Your task to perform on an android device: change the clock display to show seconds Image 0: 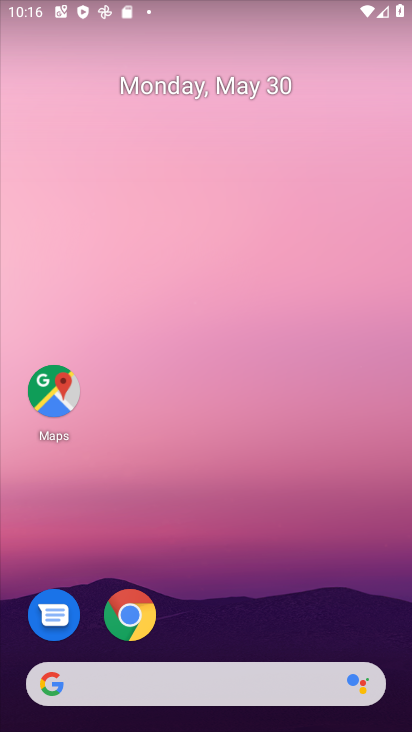
Step 0: drag from (279, 577) to (198, 6)
Your task to perform on an android device: change the clock display to show seconds Image 1: 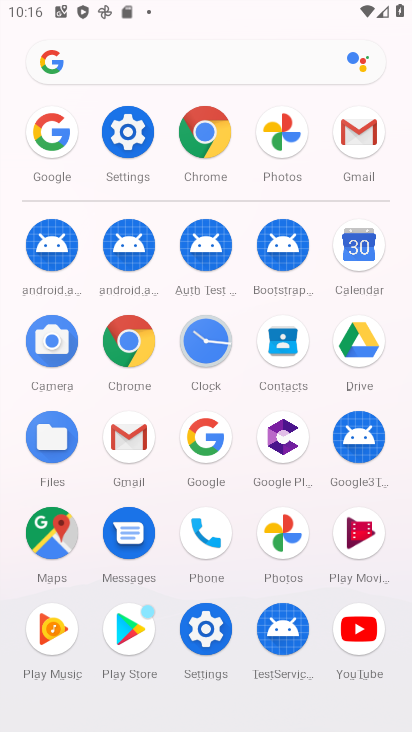
Step 1: click (209, 349)
Your task to perform on an android device: change the clock display to show seconds Image 2: 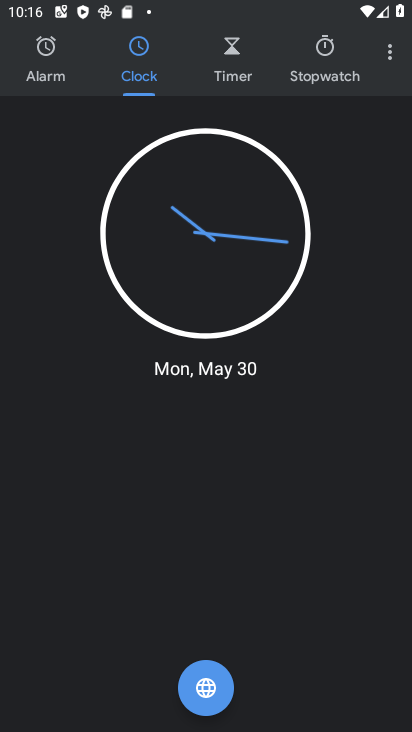
Step 2: click (390, 53)
Your task to perform on an android device: change the clock display to show seconds Image 3: 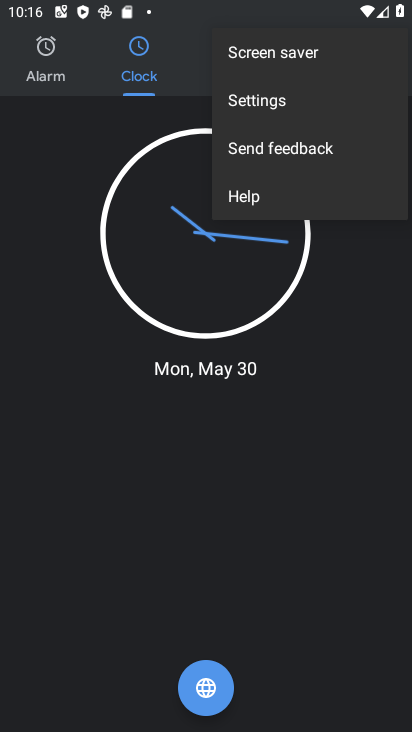
Step 3: click (258, 97)
Your task to perform on an android device: change the clock display to show seconds Image 4: 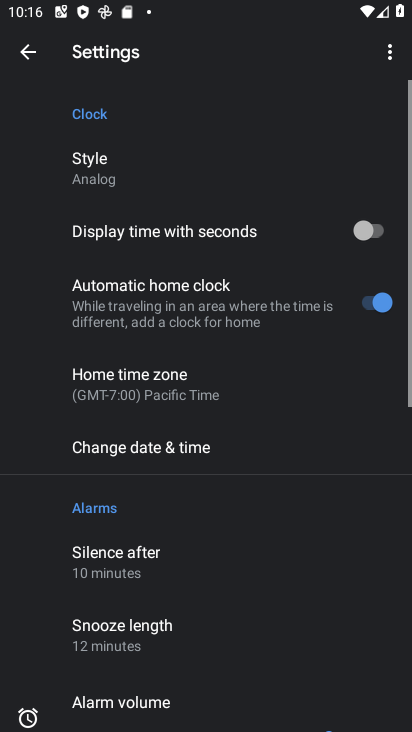
Step 4: click (366, 237)
Your task to perform on an android device: change the clock display to show seconds Image 5: 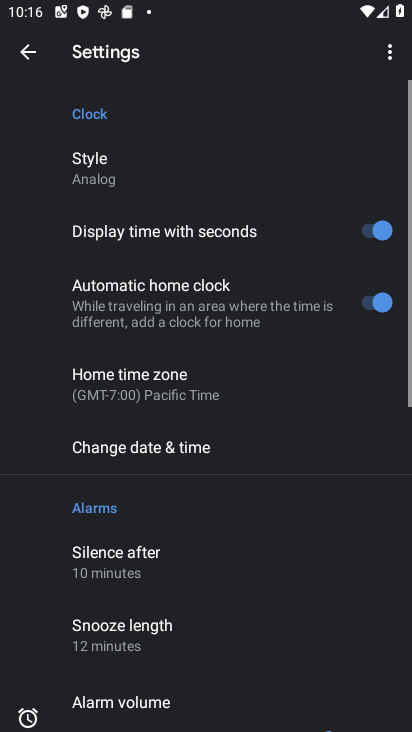
Step 5: task complete